Your task to perform on an android device: Show me popular videos on Youtube Image 0: 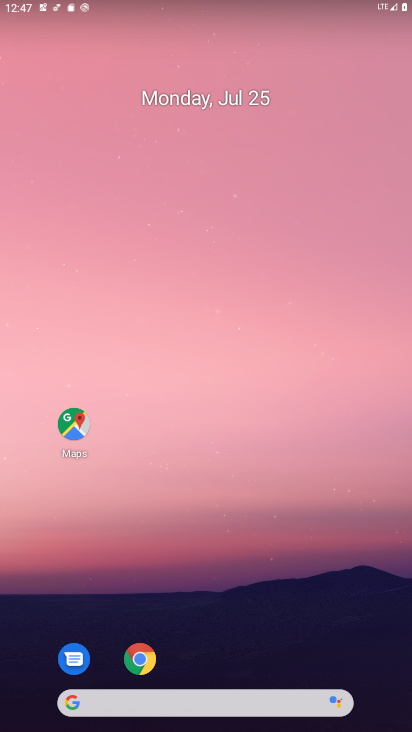
Step 0: drag from (216, 663) to (264, 94)
Your task to perform on an android device: Show me popular videos on Youtube Image 1: 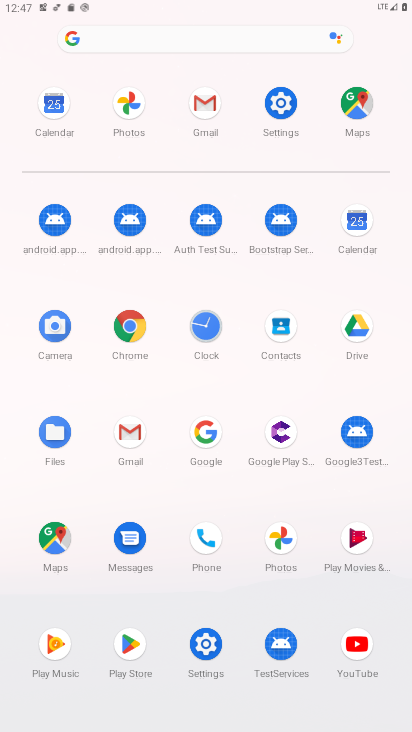
Step 1: click (360, 635)
Your task to perform on an android device: Show me popular videos on Youtube Image 2: 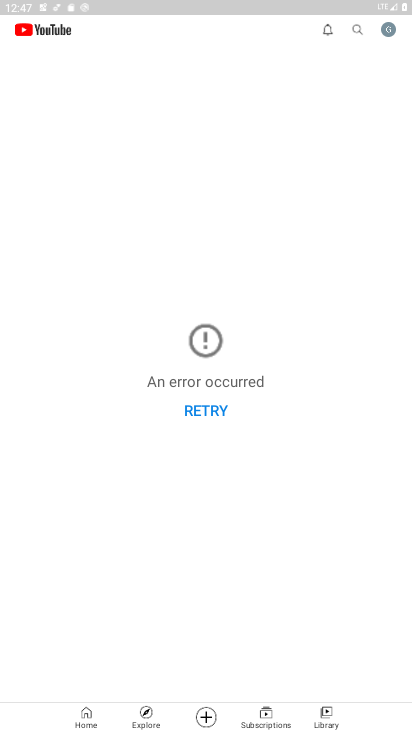
Step 2: click (145, 714)
Your task to perform on an android device: Show me popular videos on Youtube Image 3: 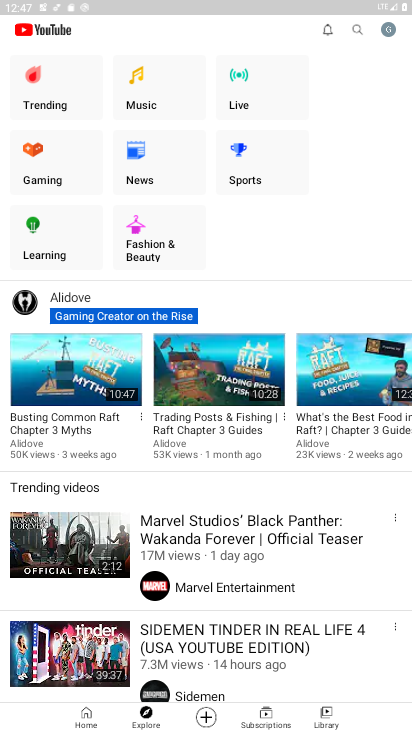
Step 3: click (53, 77)
Your task to perform on an android device: Show me popular videos on Youtube Image 4: 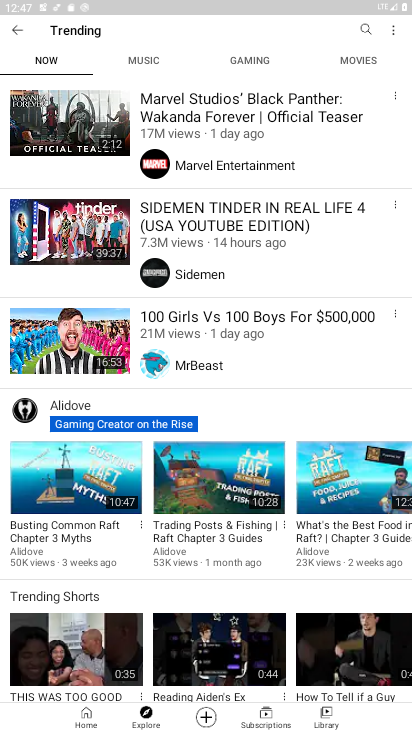
Step 4: task complete